Your task to perform on an android device: Go to Yahoo.com Image 0: 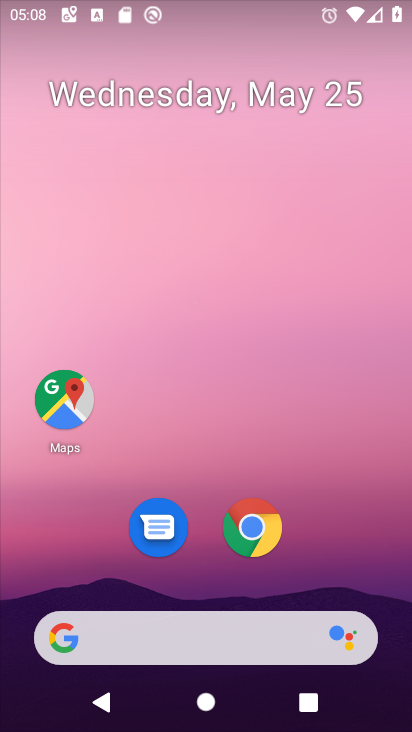
Step 0: drag from (200, 515) to (200, 305)
Your task to perform on an android device: Go to Yahoo.com Image 1: 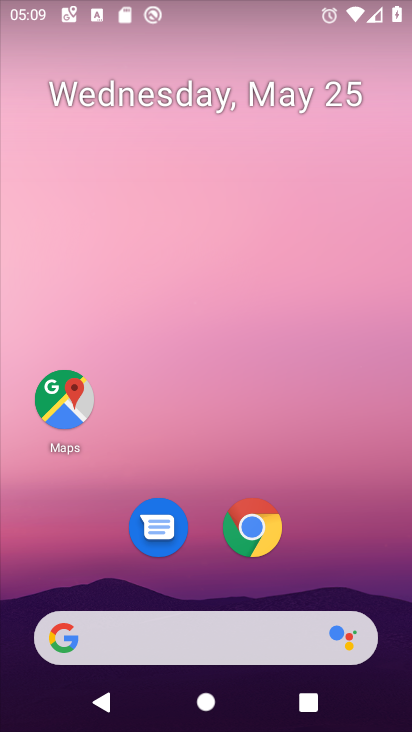
Step 1: drag from (221, 577) to (249, 54)
Your task to perform on an android device: Go to Yahoo.com Image 2: 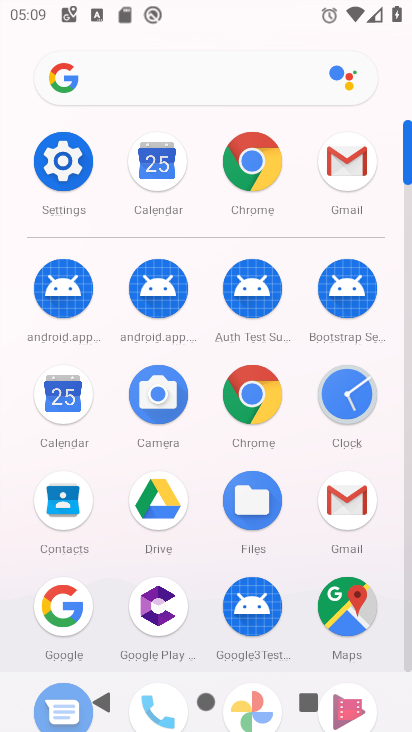
Step 2: click (261, 173)
Your task to perform on an android device: Go to Yahoo.com Image 3: 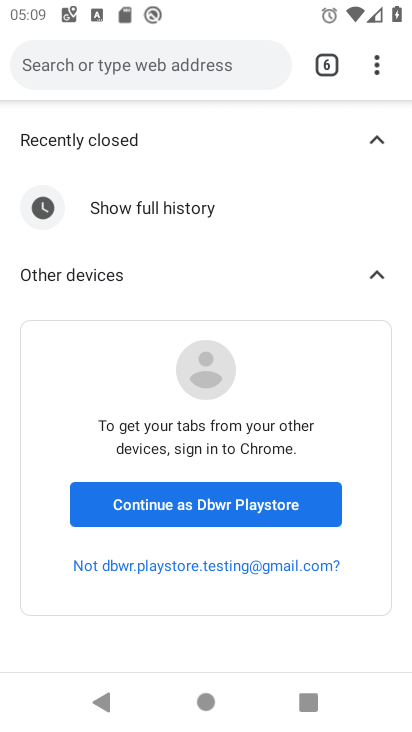
Step 3: click (249, 70)
Your task to perform on an android device: Go to Yahoo.com Image 4: 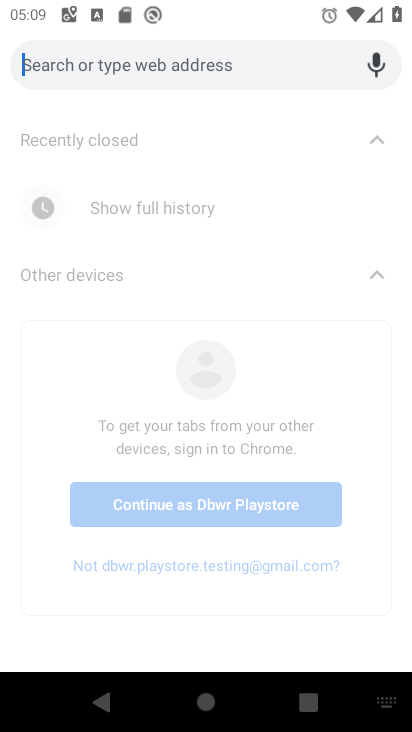
Step 4: type "yahoo.com"
Your task to perform on an android device: Go to Yahoo.com Image 5: 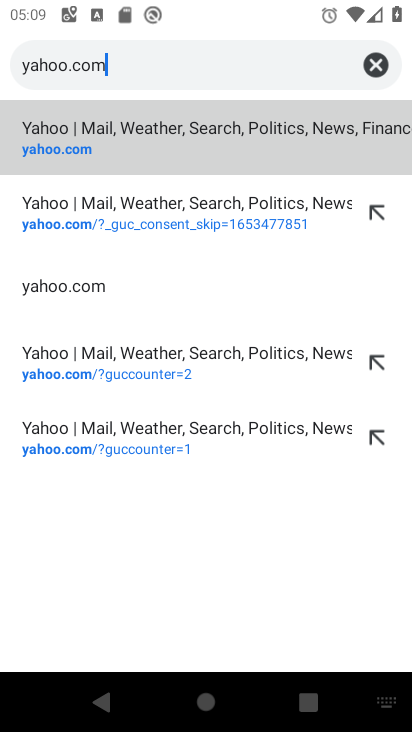
Step 5: click (94, 285)
Your task to perform on an android device: Go to Yahoo.com Image 6: 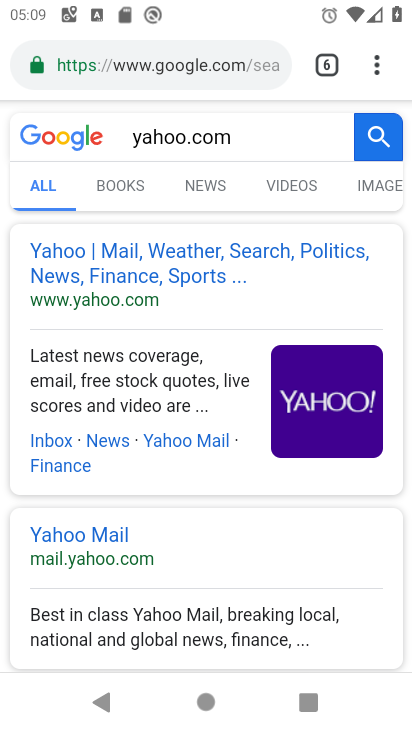
Step 6: click (118, 263)
Your task to perform on an android device: Go to Yahoo.com Image 7: 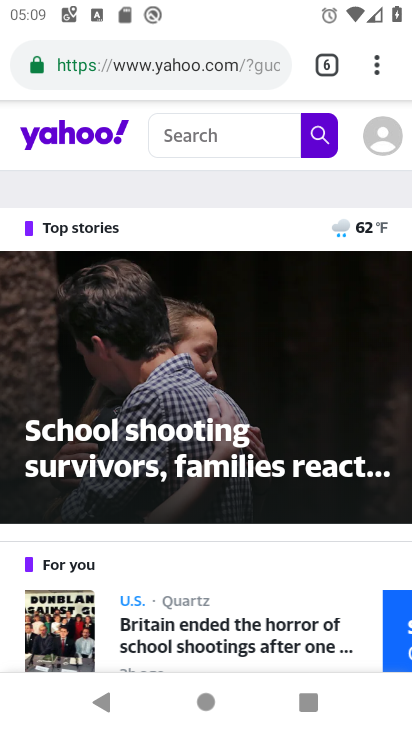
Step 7: task complete